Your task to perform on an android device: check google app version Image 0: 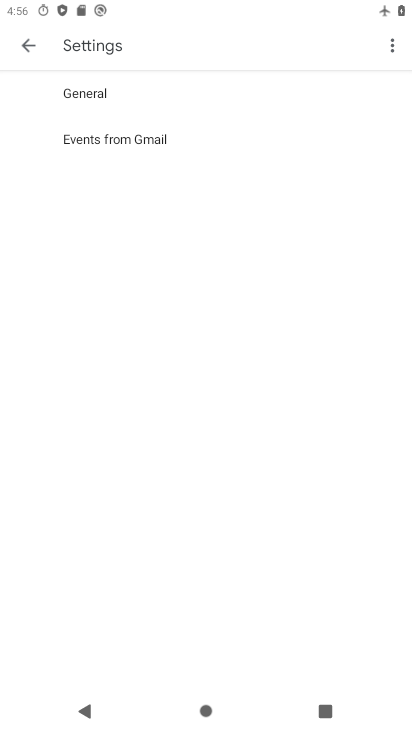
Step 0: press home button
Your task to perform on an android device: check google app version Image 1: 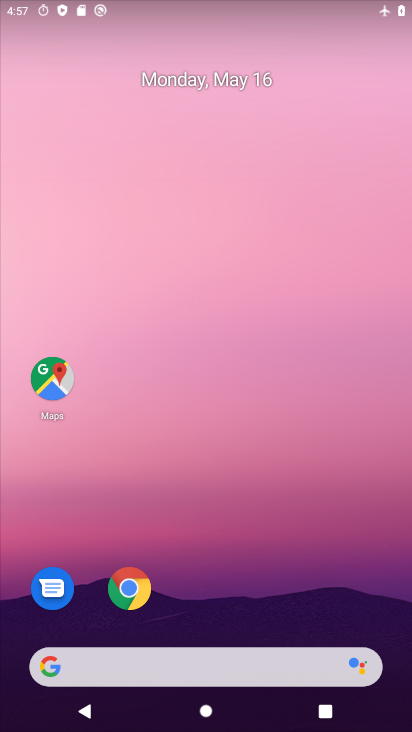
Step 1: click (130, 594)
Your task to perform on an android device: check google app version Image 2: 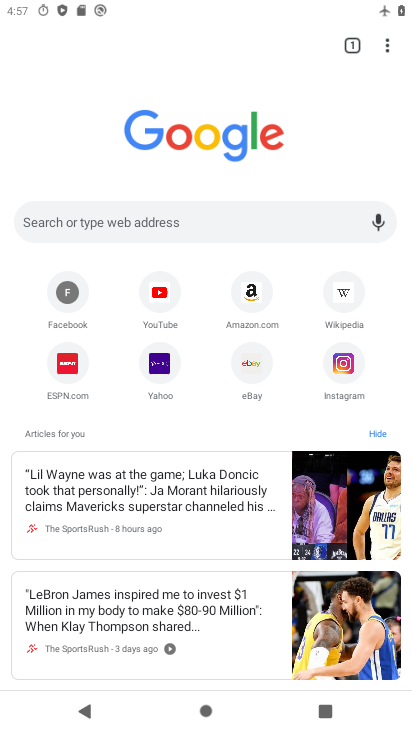
Step 2: click (387, 53)
Your task to perform on an android device: check google app version Image 3: 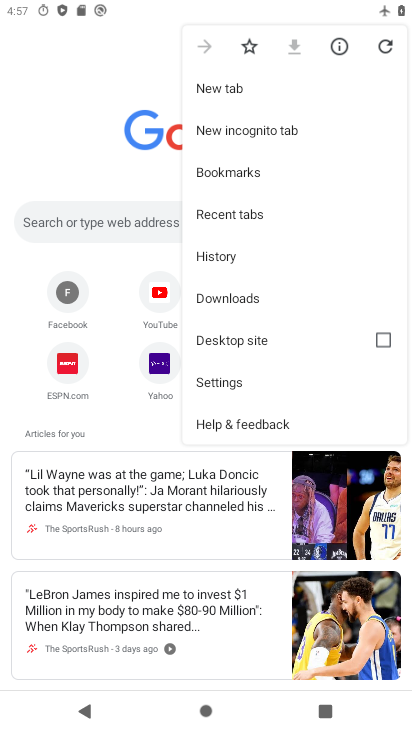
Step 3: click (301, 434)
Your task to perform on an android device: check google app version Image 4: 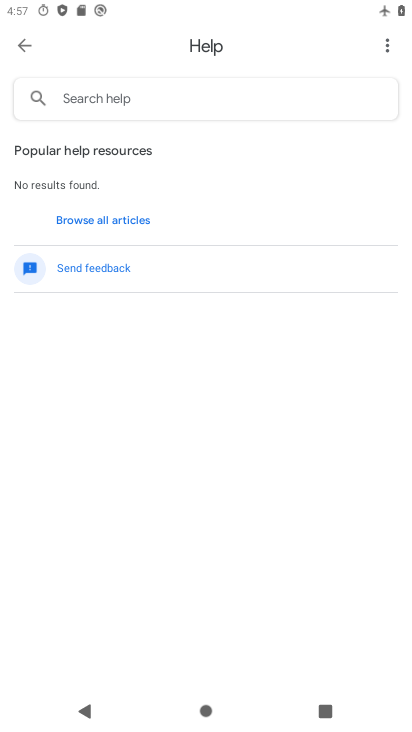
Step 4: click (387, 49)
Your task to perform on an android device: check google app version Image 5: 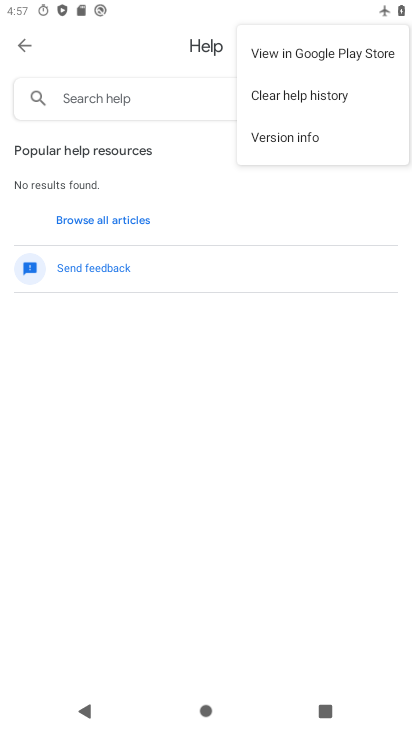
Step 5: click (345, 136)
Your task to perform on an android device: check google app version Image 6: 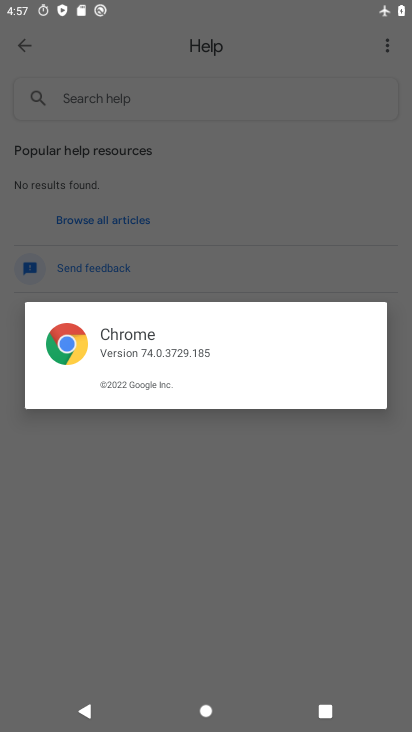
Step 6: task complete